Your task to perform on an android device: turn off data saver in the chrome app Image 0: 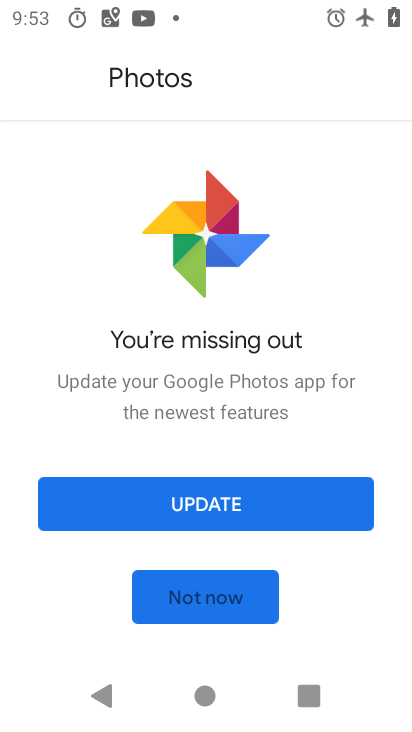
Step 0: press home button
Your task to perform on an android device: turn off data saver in the chrome app Image 1: 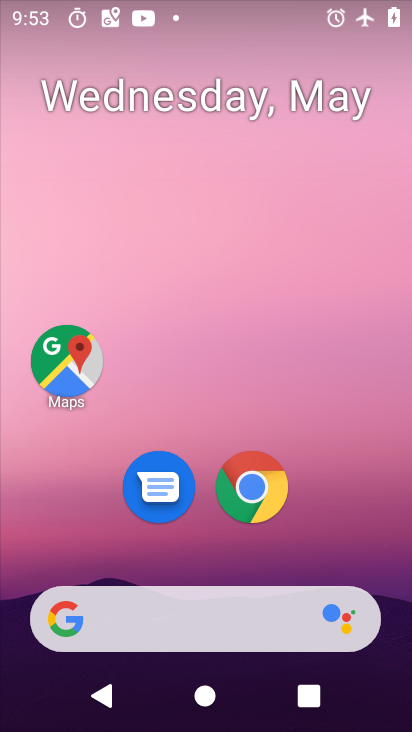
Step 1: click (257, 495)
Your task to perform on an android device: turn off data saver in the chrome app Image 2: 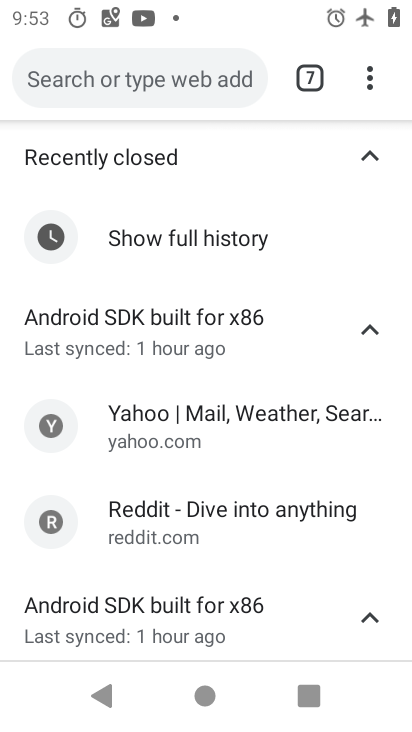
Step 2: click (365, 86)
Your task to perform on an android device: turn off data saver in the chrome app Image 3: 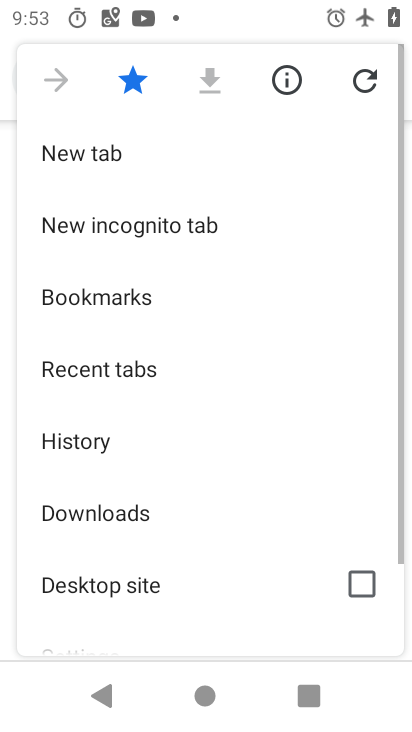
Step 3: drag from (195, 563) to (239, 262)
Your task to perform on an android device: turn off data saver in the chrome app Image 4: 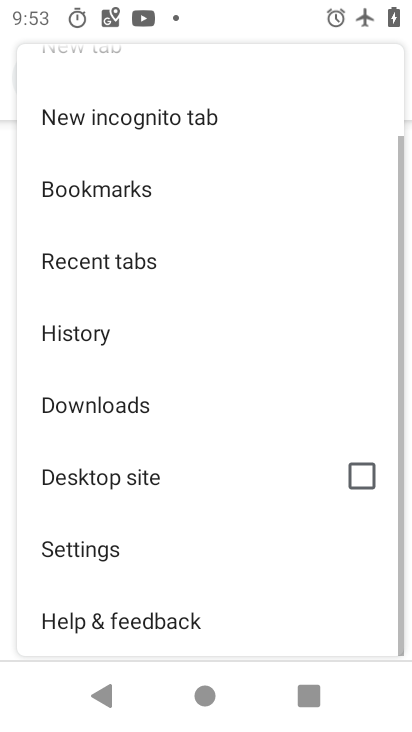
Step 4: click (138, 539)
Your task to perform on an android device: turn off data saver in the chrome app Image 5: 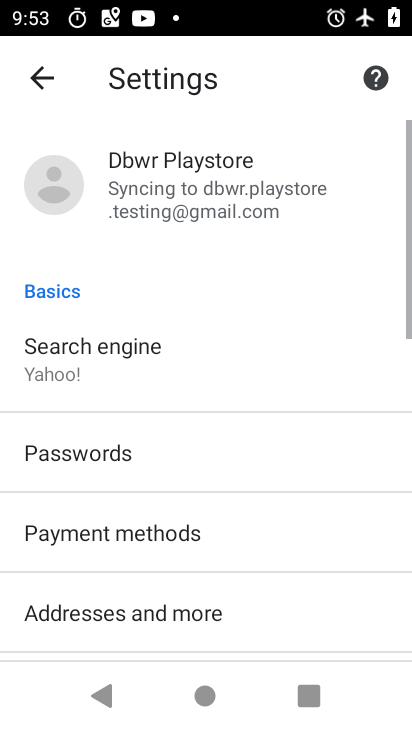
Step 5: drag from (199, 536) to (217, 317)
Your task to perform on an android device: turn off data saver in the chrome app Image 6: 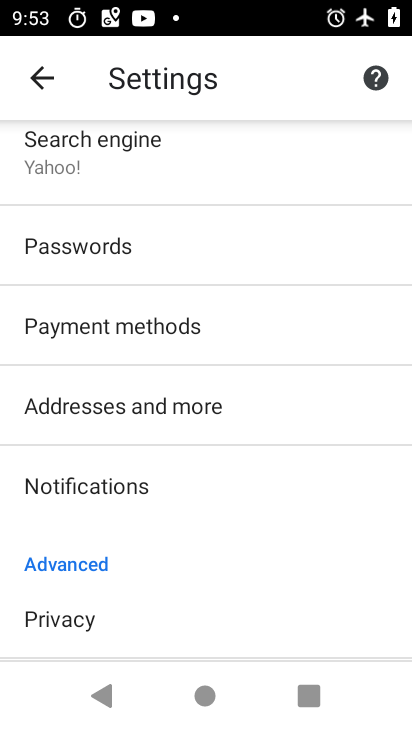
Step 6: drag from (228, 528) to (257, 197)
Your task to perform on an android device: turn off data saver in the chrome app Image 7: 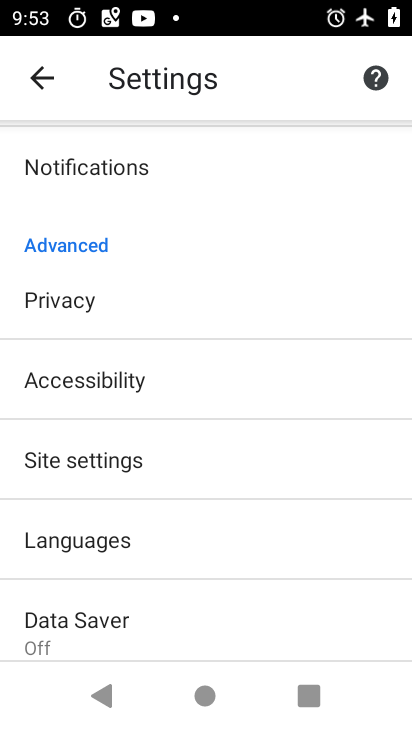
Step 7: click (153, 607)
Your task to perform on an android device: turn off data saver in the chrome app Image 8: 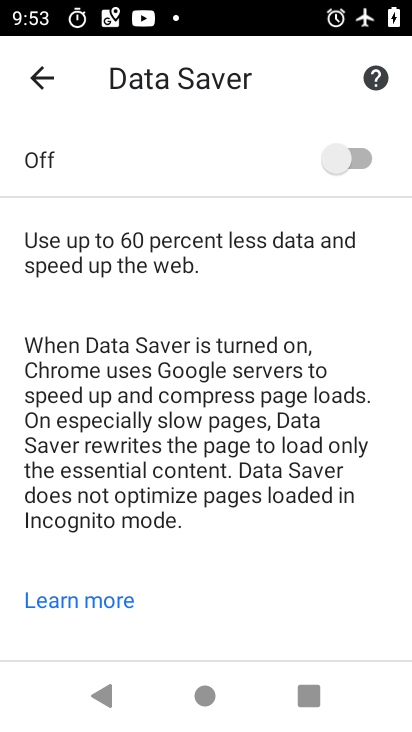
Step 8: task complete